Your task to perform on an android device: Open Yahoo.com Image 0: 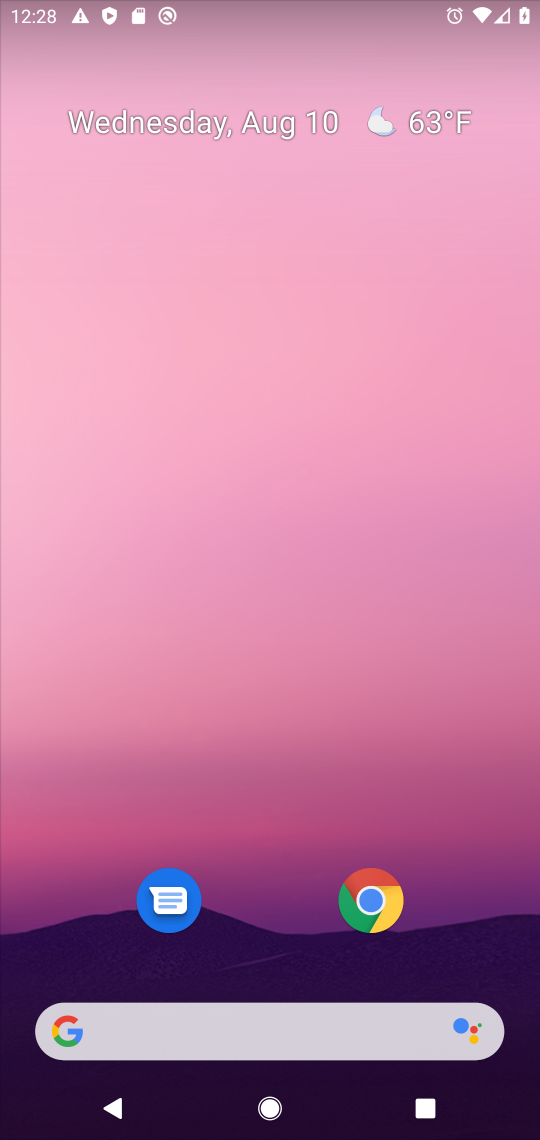
Step 0: click (349, 1023)
Your task to perform on an android device: Open Yahoo.com Image 1: 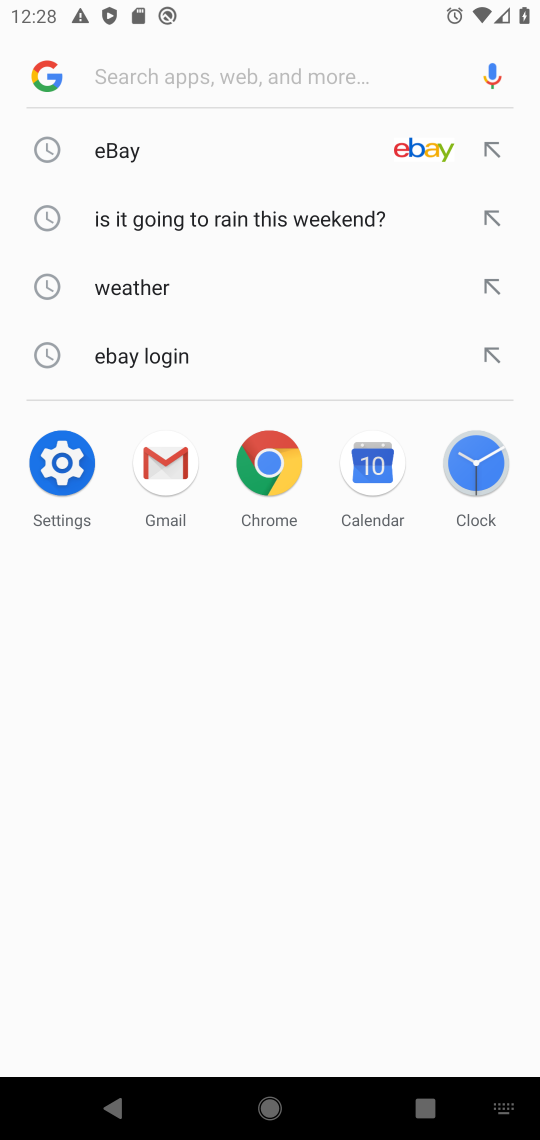
Step 1: type "yahoo.com"
Your task to perform on an android device: Open Yahoo.com Image 2: 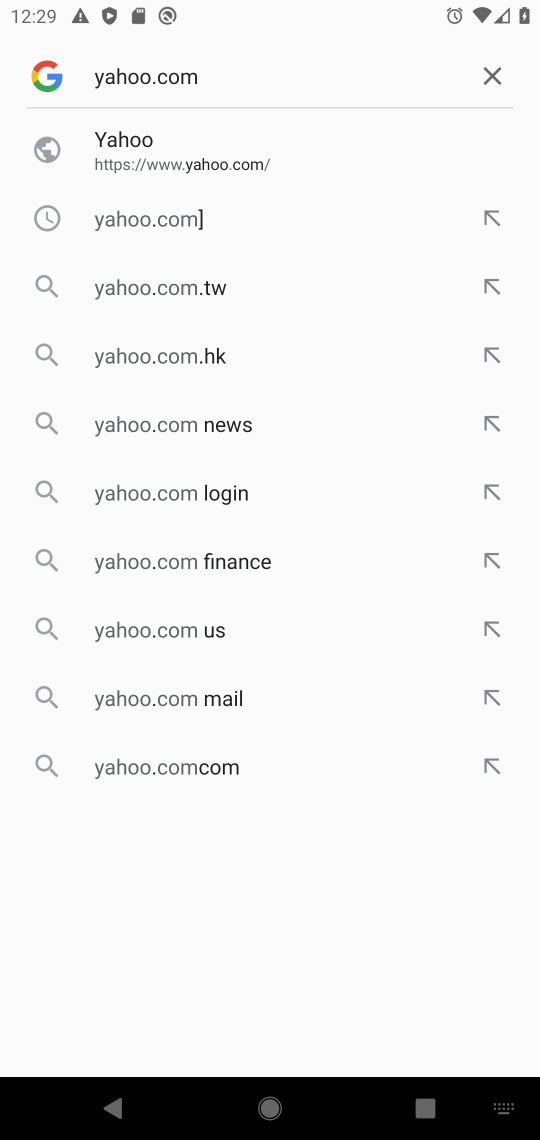
Step 2: click (267, 148)
Your task to perform on an android device: Open Yahoo.com Image 3: 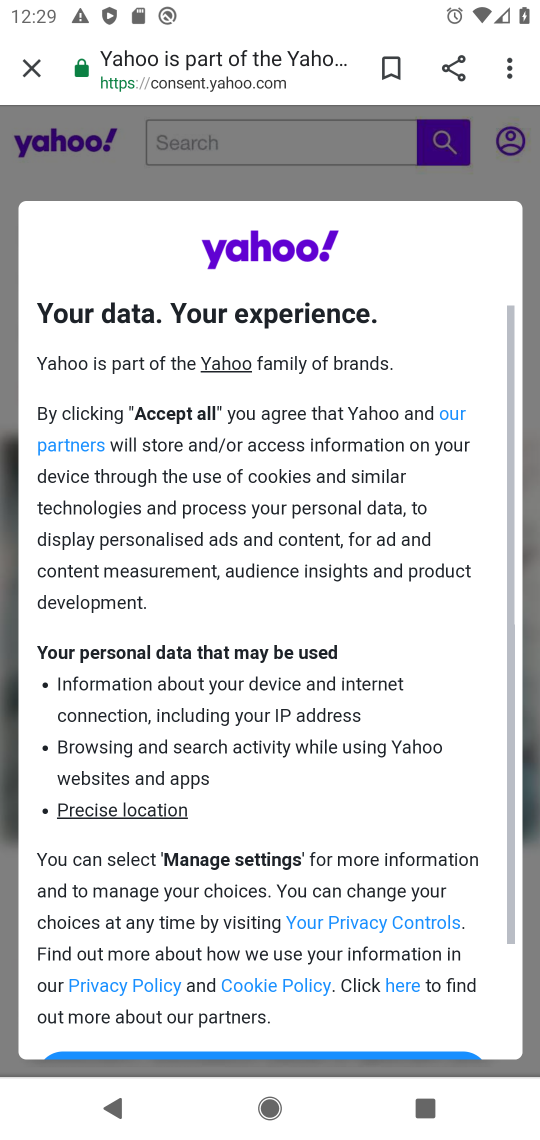
Step 3: drag from (321, 659) to (337, 225)
Your task to perform on an android device: Open Yahoo.com Image 4: 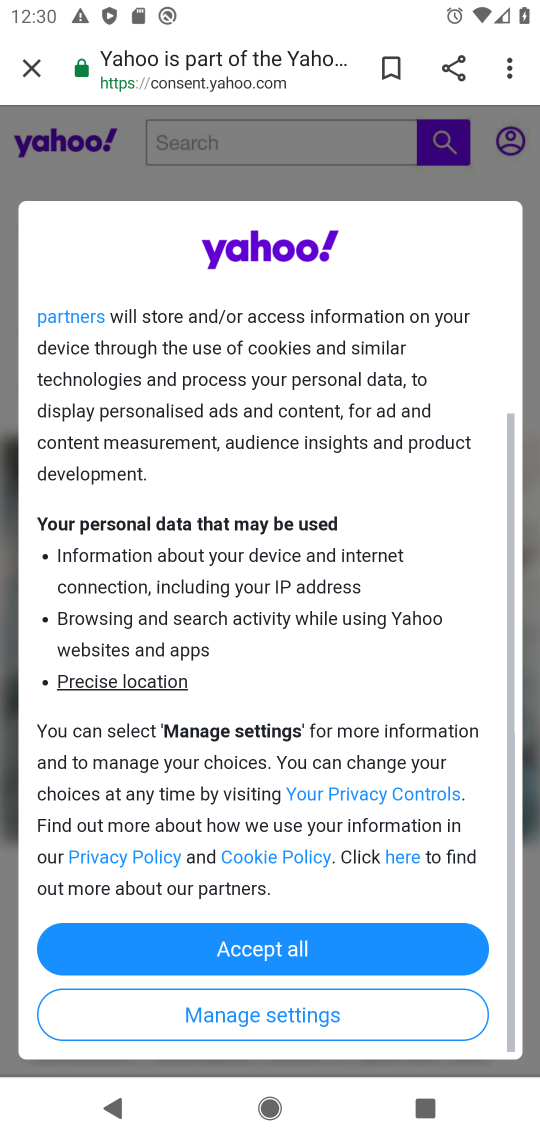
Step 4: click (361, 947)
Your task to perform on an android device: Open Yahoo.com Image 5: 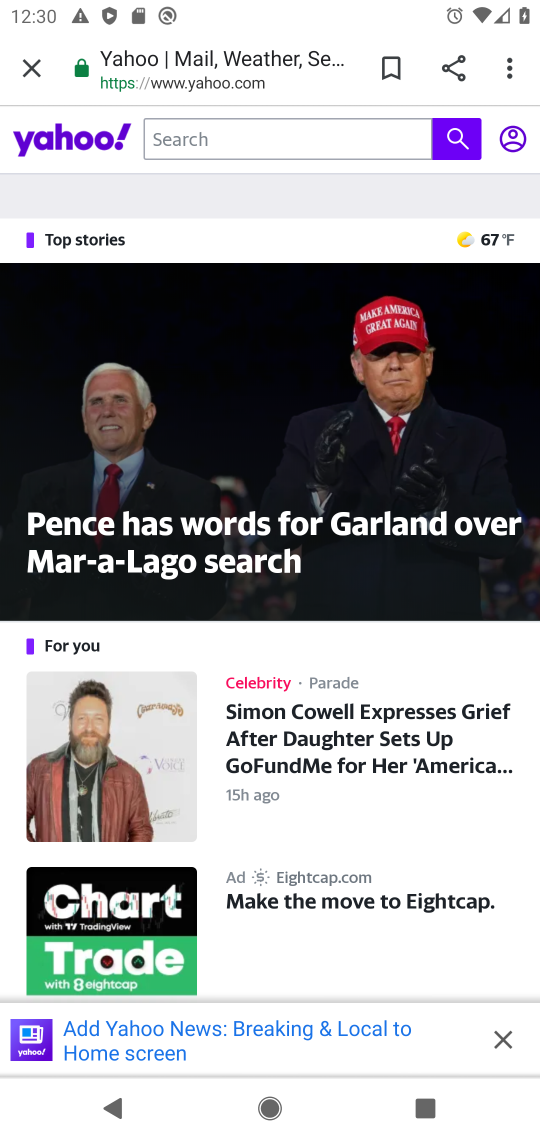
Step 5: task complete